Your task to perform on an android device: Open accessibility settings Image 0: 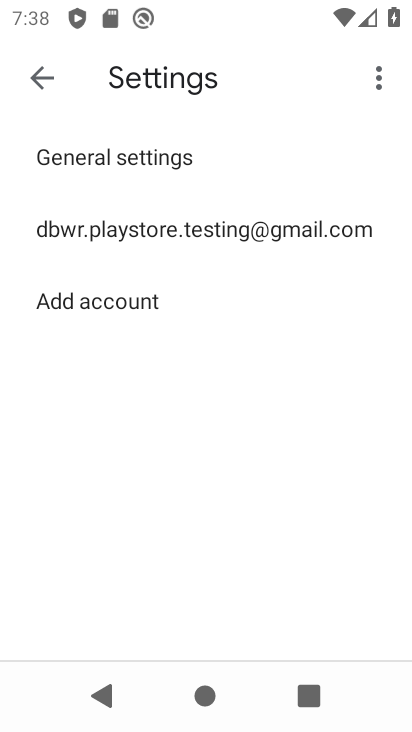
Step 0: press home button
Your task to perform on an android device: Open accessibility settings Image 1: 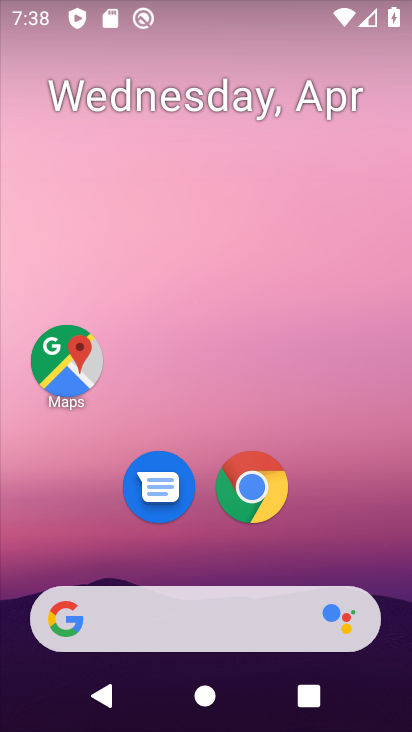
Step 1: drag from (358, 530) to (339, 116)
Your task to perform on an android device: Open accessibility settings Image 2: 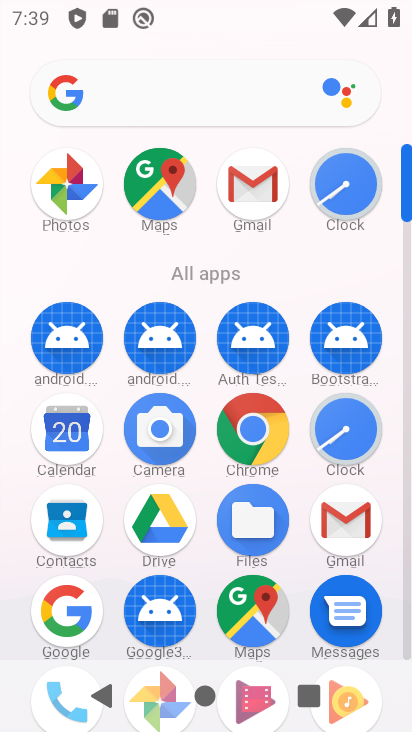
Step 2: drag from (213, 561) to (295, 238)
Your task to perform on an android device: Open accessibility settings Image 3: 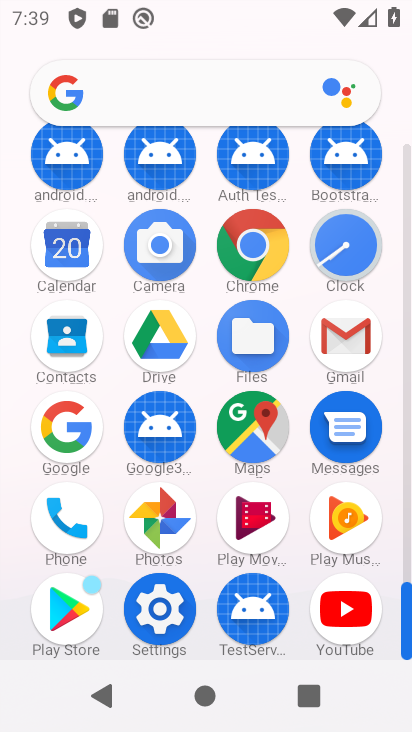
Step 3: click (151, 607)
Your task to perform on an android device: Open accessibility settings Image 4: 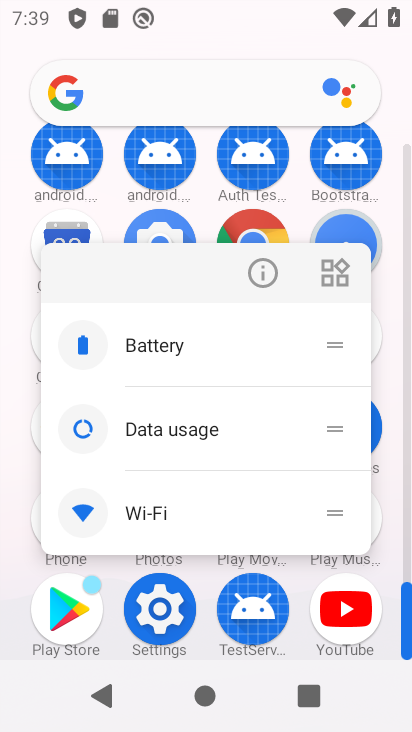
Step 4: click (180, 602)
Your task to perform on an android device: Open accessibility settings Image 5: 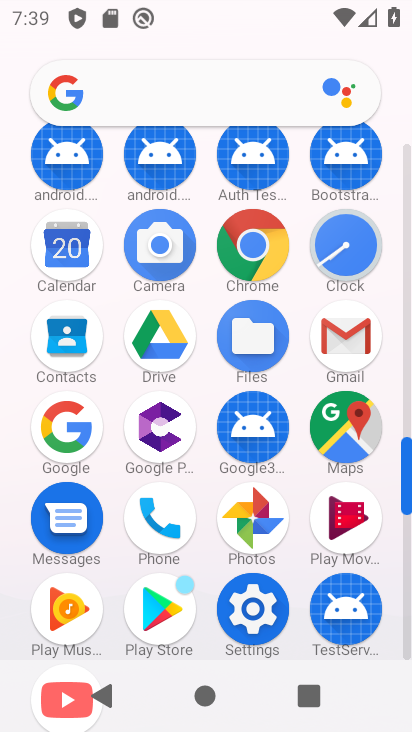
Step 5: click (249, 611)
Your task to perform on an android device: Open accessibility settings Image 6: 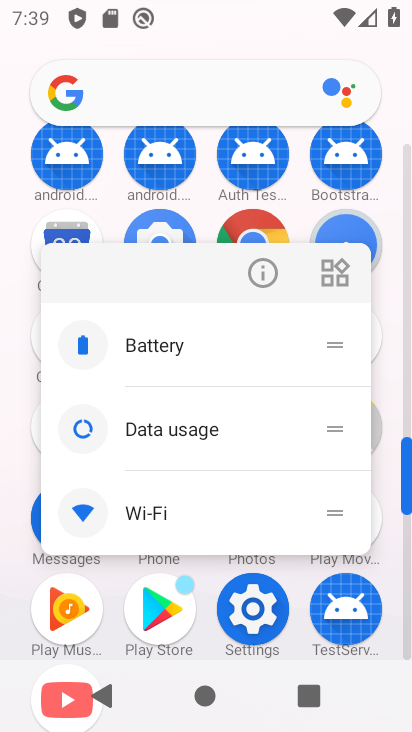
Step 6: click (249, 611)
Your task to perform on an android device: Open accessibility settings Image 7: 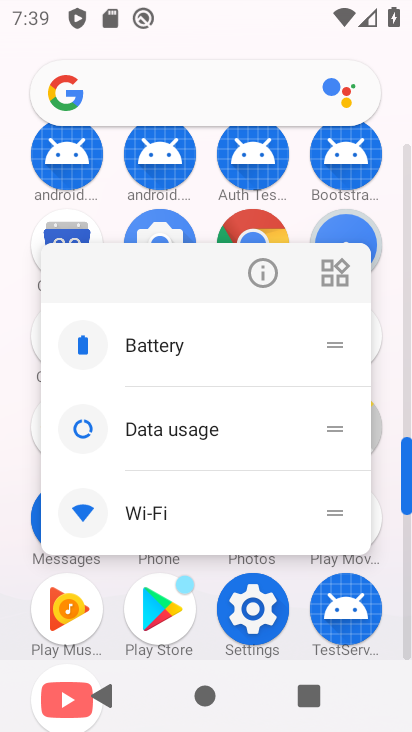
Step 7: click (252, 620)
Your task to perform on an android device: Open accessibility settings Image 8: 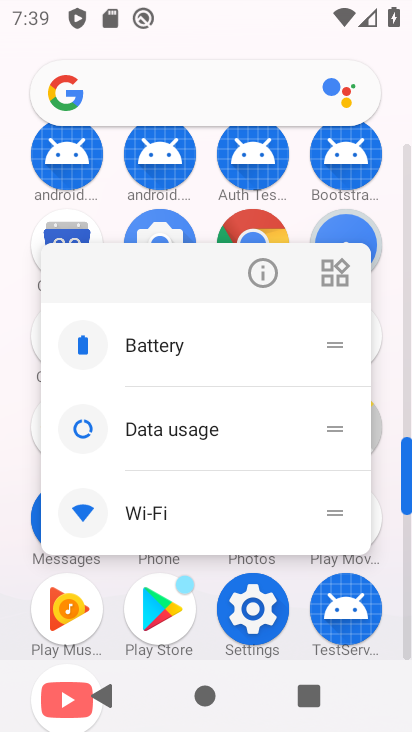
Step 8: click (259, 610)
Your task to perform on an android device: Open accessibility settings Image 9: 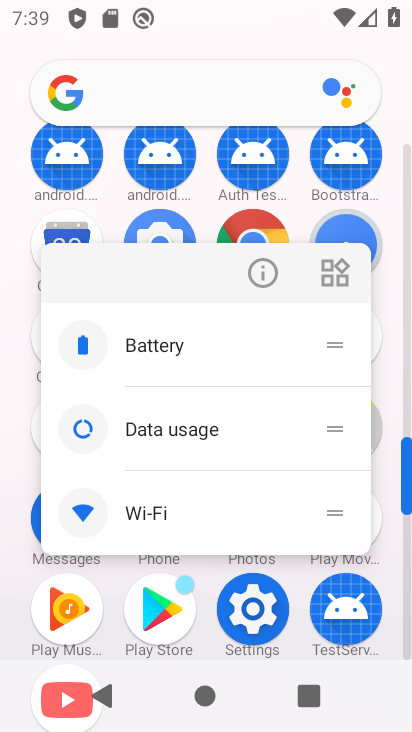
Step 9: click (259, 610)
Your task to perform on an android device: Open accessibility settings Image 10: 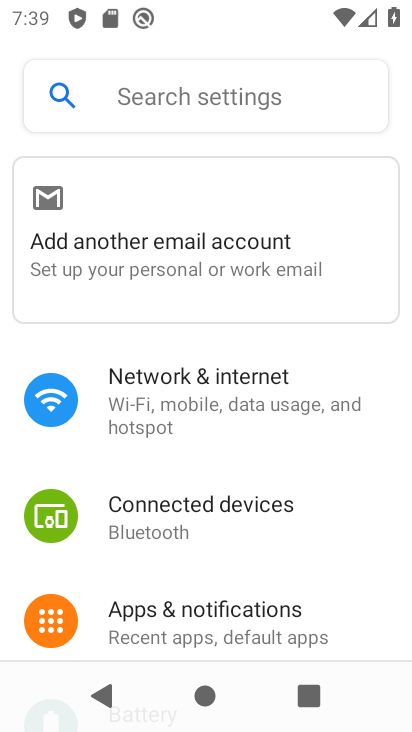
Step 10: drag from (196, 601) to (244, 158)
Your task to perform on an android device: Open accessibility settings Image 11: 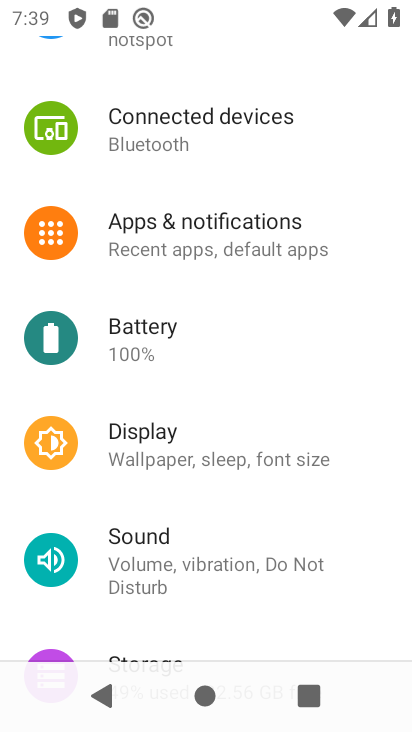
Step 11: drag from (145, 475) to (222, 163)
Your task to perform on an android device: Open accessibility settings Image 12: 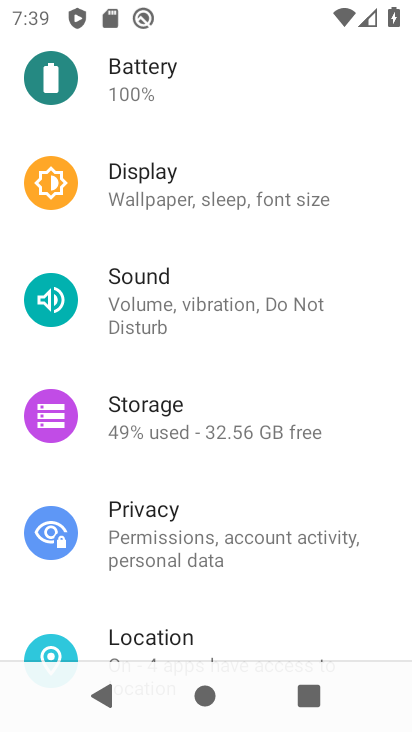
Step 12: drag from (225, 531) to (235, 159)
Your task to perform on an android device: Open accessibility settings Image 13: 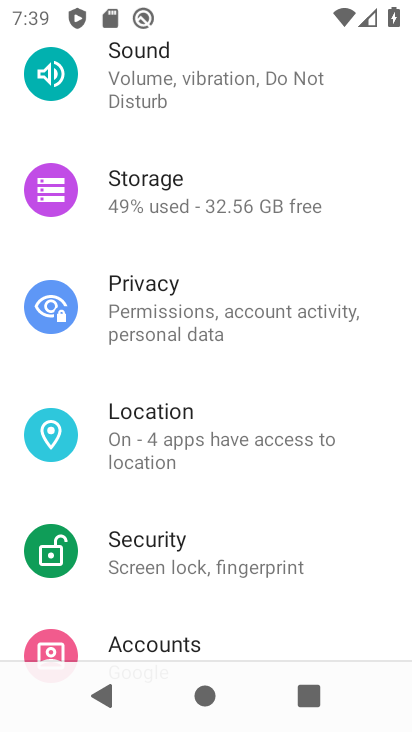
Step 13: drag from (273, 548) to (297, 288)
Your task to perform on an android device: Open accessibility settings Image 14: 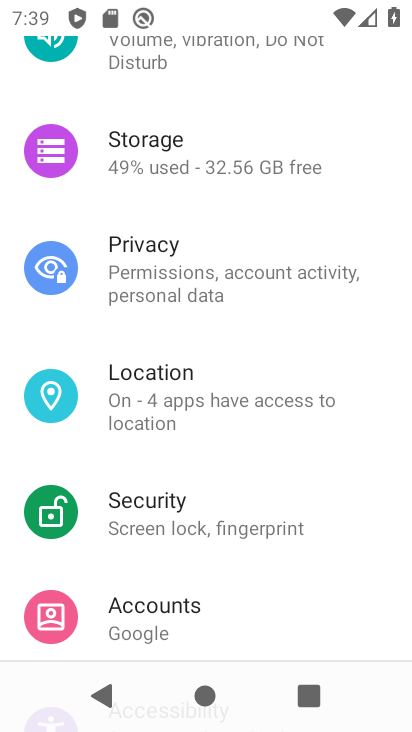
Step 14: drag from (306, 642) to (296, 110)
Your task to perform on an android device: Open accessibility settings Image 15: 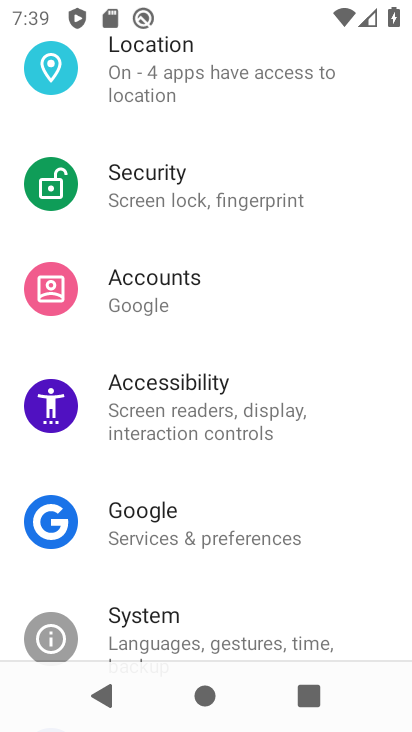
Step 15: click (196, 390)
Your task to perform on an android device: Open accessibility settings Image 16: 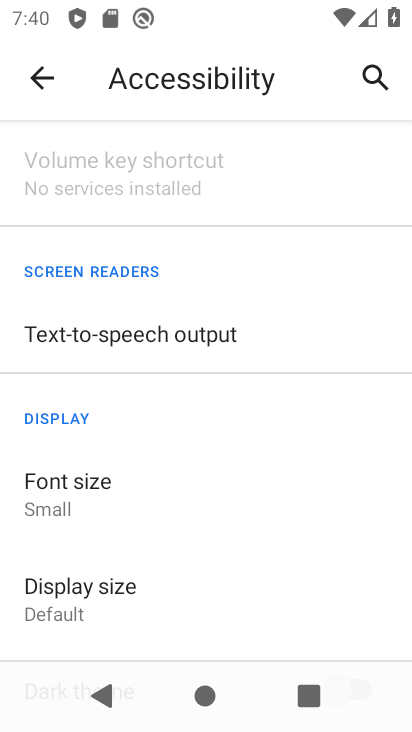
Step 16: task complete